Your task to perform on an android device: empty trash in google photos Image 0: 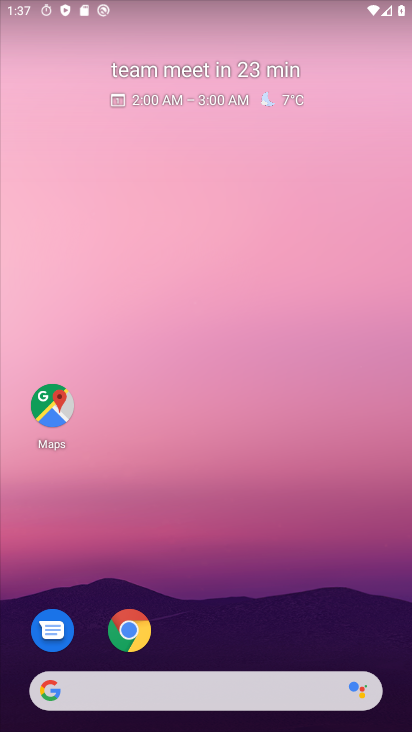
Step 0: drag from (215, 687) to (234, 255)
Your task to perform on an android device: empty trash in google photos Image 1: 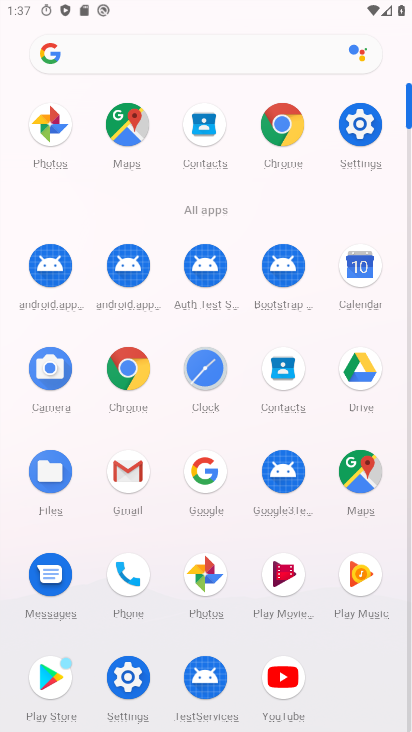
Step 1: click (210, 568)
Your task to perform on an android device: empty trash in google photos Image 2: 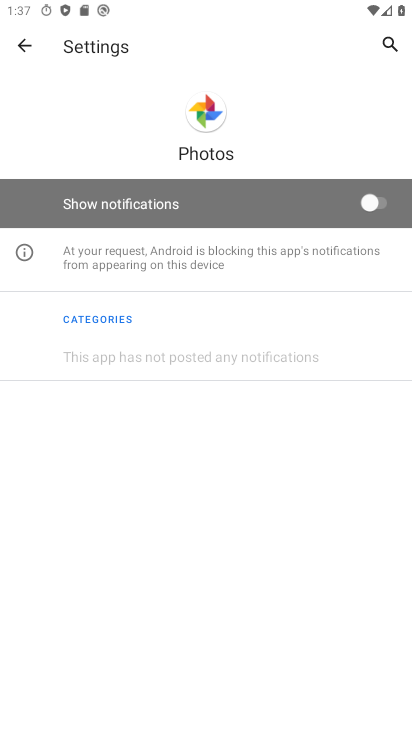
Step 2: click (20, 42)
Your task to perform on an android device: empty trash in google photos Image 3: 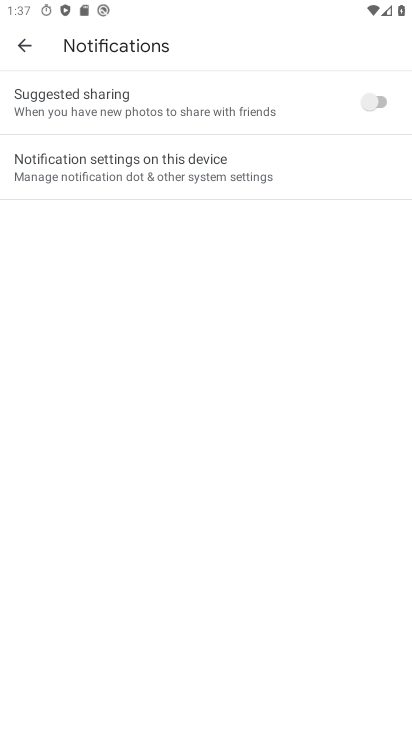
Step 3: click (20, 42)
Your task to perform on an android device: empty trash in google photos Image 4: 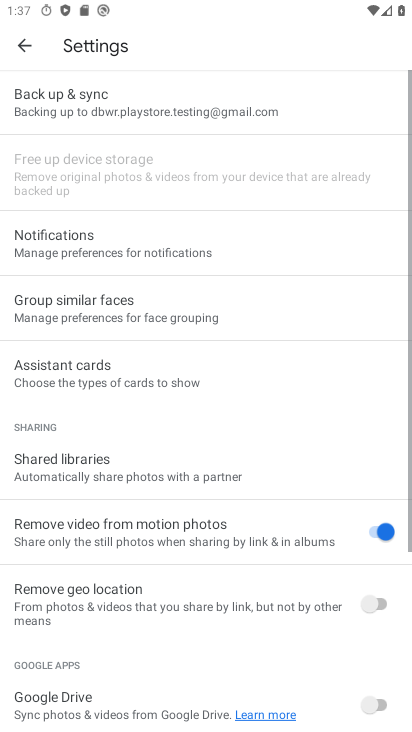
Step 4: click (12, 48)
Your task to perform on an android device: empty trash in google photos Image 5: 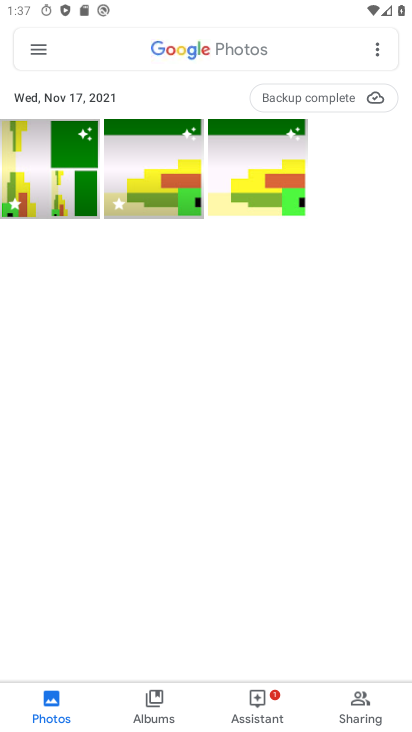
Step 5: click (38, 58)
Your task to perform on an android device: empty trash in google photos Image 6: 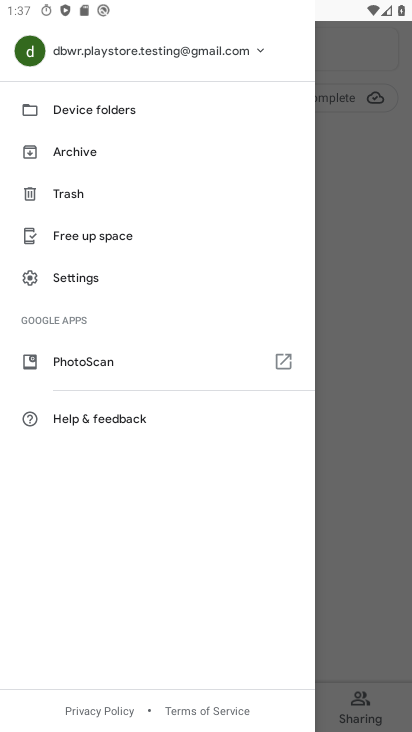
Step 6: click (48, 193)
Your task to perform on an android device: empty trash in google photos Image 7: 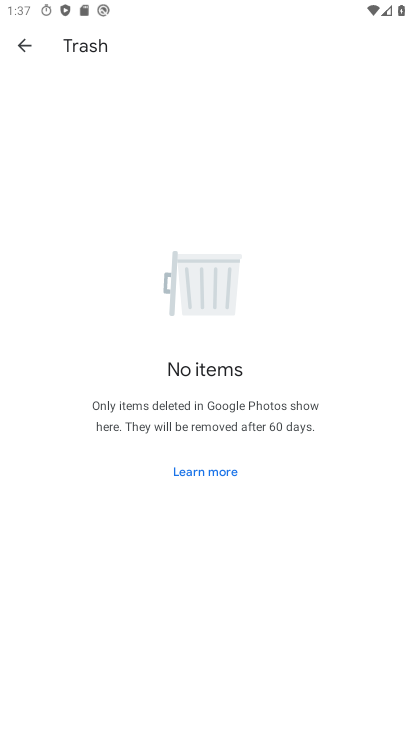
Step 7: task complete